Your task to perform on an android device: change notifications settings Image 0: 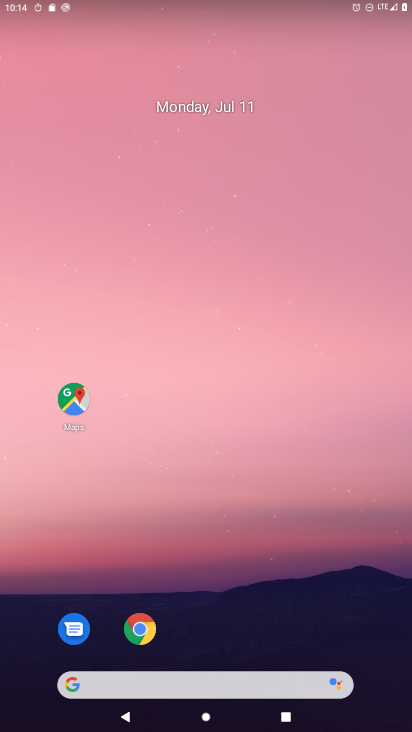
Step 0: drag from (224, 636) to (125, 22)
Your task to perform on an android device: change notifications settings Image 1: 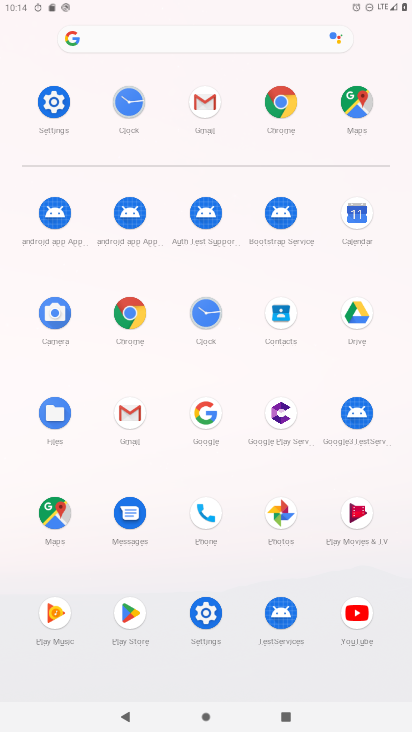
Step 1: click (48, 104)
Your task to perform on an android device: change notifications settings Image 2: 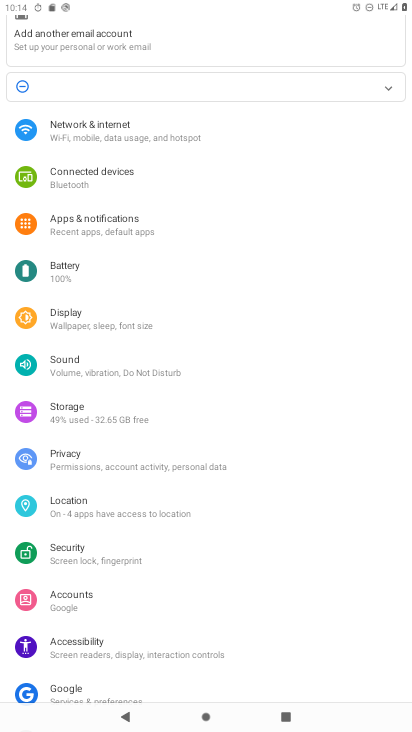
Step 2: click (111, 230)
Your task to perform on an android device: change notifications settings Image 3: 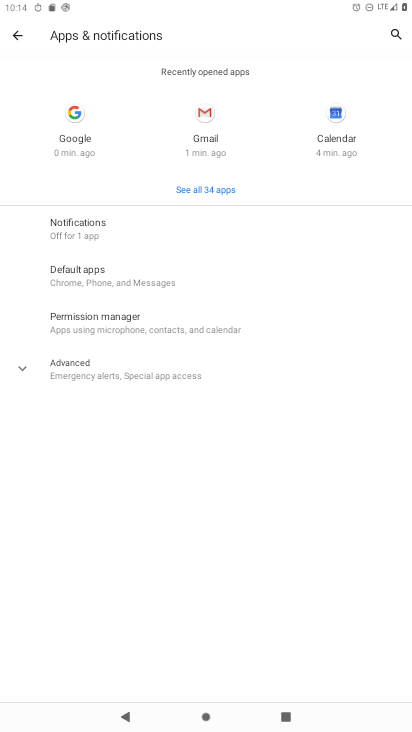
Step 3: click (111, 230)
Your task to perform on an android device: change notifications settings Image 4: 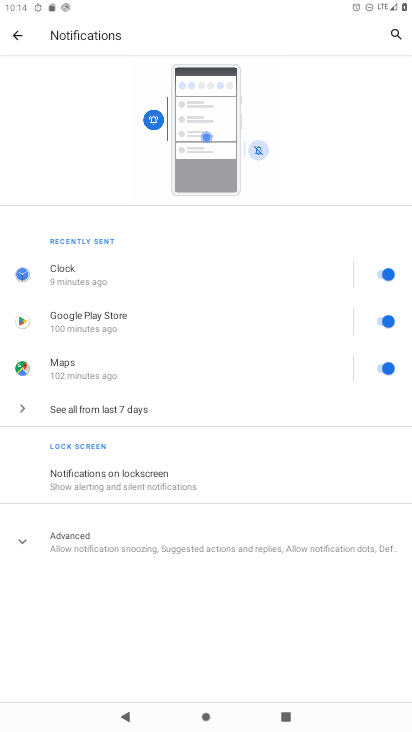
Step 4: click (192, 539)
Your task to perform on an android device: change notifications settings Image 5: 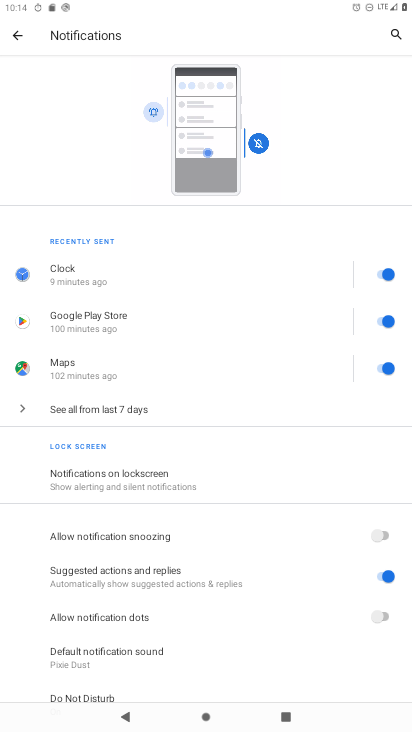
Step 5: click (374, 529)
Your task to perform on an android device: change notifications settings Image 6: 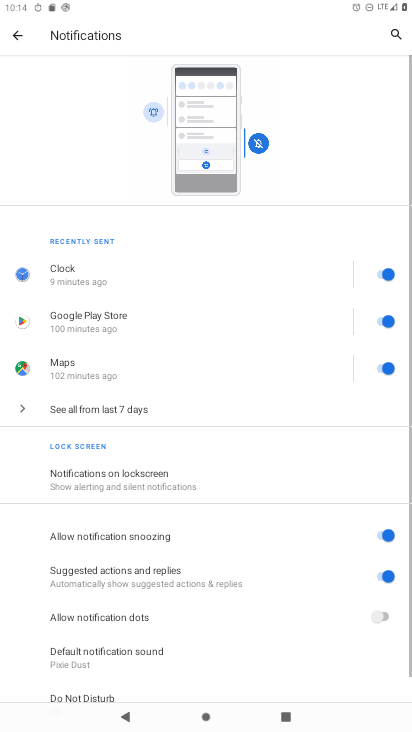
Step 6: click (377, 576)
Your task to perform on an android device: change notifications settings Image 7: 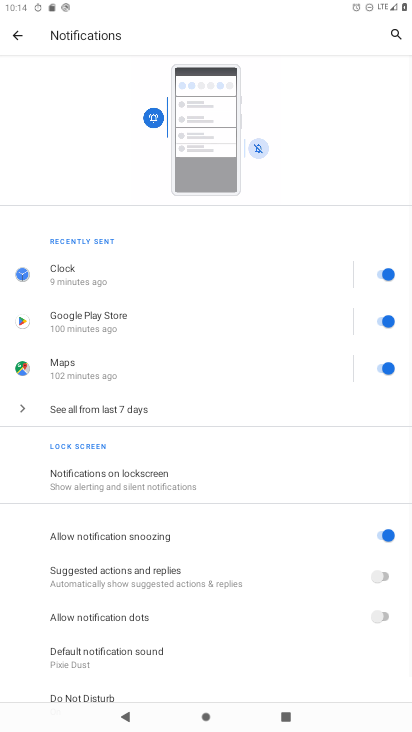
Step 7: task complete